Your task to perform on an android device: turn on translation in the chrome app Image 0: 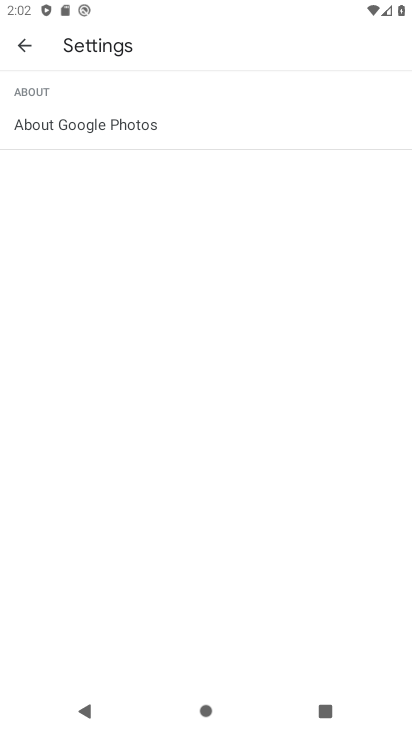
Step 0: press home button
Your task to perform on an android device: turn on translation in the chrome app Image 1: 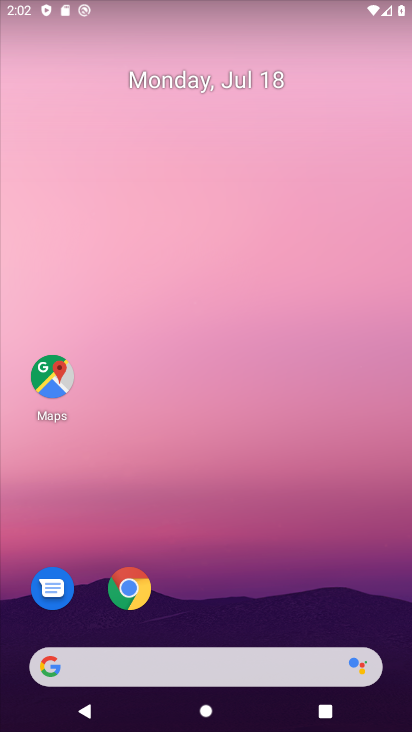
Step 1: drag from (367, 622) to (301, 156)
Your task to perform on an android device: turn on translation in the chrome app Image 2: 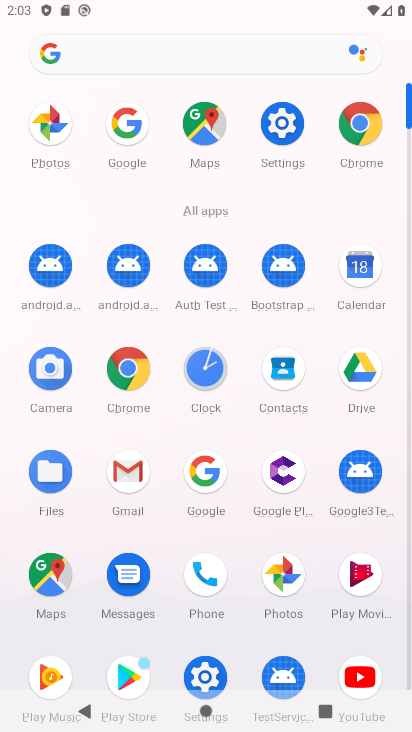
Step 2: click (369, 136)
Your task to perform on an android device: turn on translation in the chrome app Image 3: 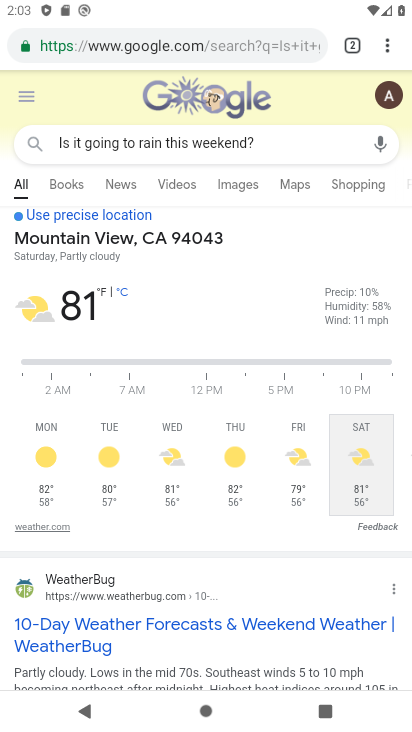
Step 3: click (395, 55)
Your task to perform on an android device: turn on translation in the chrome app Image 4: 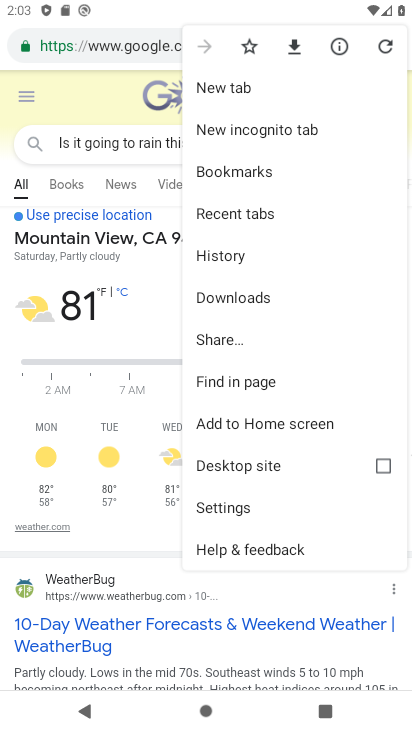
Step 4: click (288, 504)
Your task to perform on an android device: turn on translation in the chrome app Image 5: 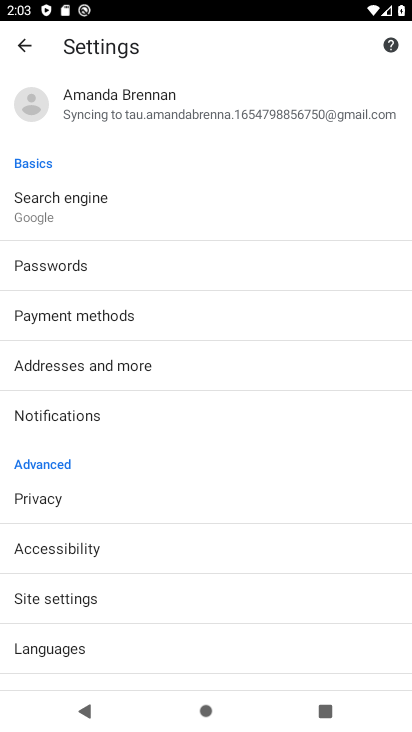
Step 5: click (146, 642)
Your task to perform on an android device: turn on translation in the chrome app Image 6: 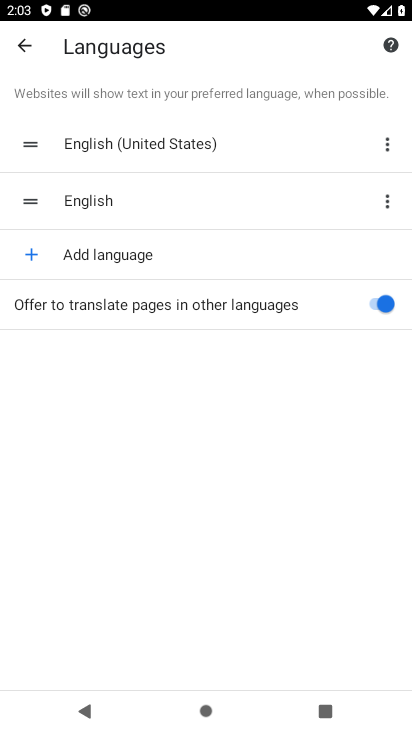
Step 6: task complete